Your task to perform on an android device: What's on my calendar today? Image 0: 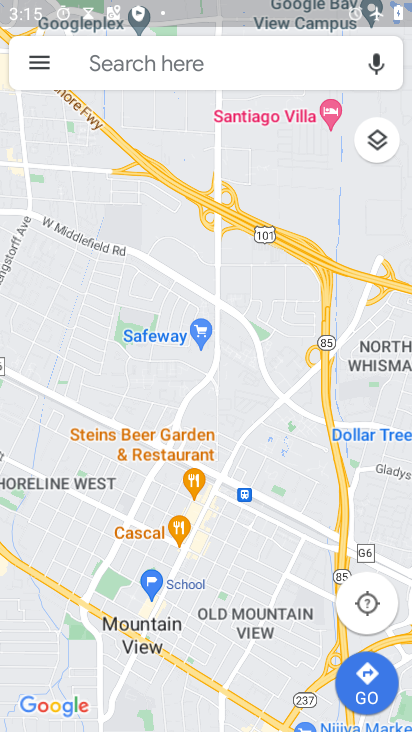
Step 0: press back button
Your task to perform on an android device: What's on my calendar today? Image 1: 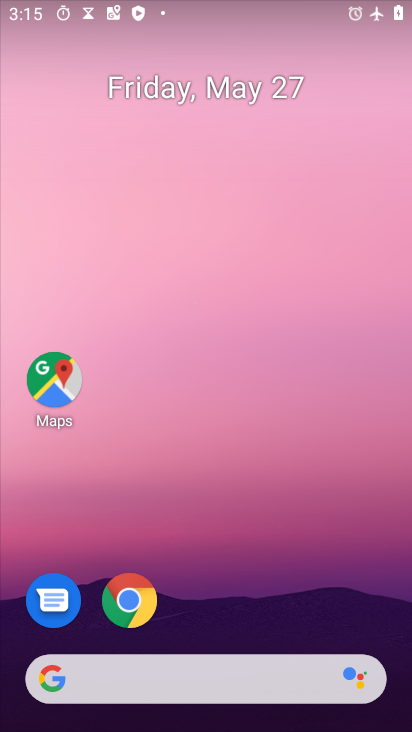
Step 1: drag from (267, 592) to (200, 29)
Your task to perform on an android device: What's on my calendar today? Image 2: 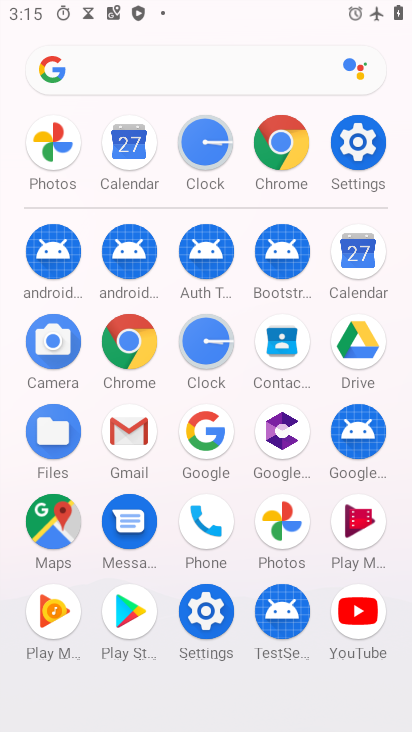
Step 2: drag from (8, 599) to (3, 234)
Your task to perform on an android device: What's on my calendar today? Image 3: 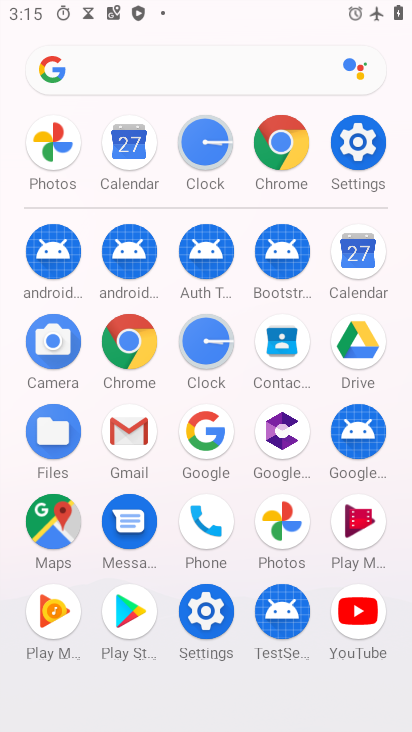
Step 3: drag from (8, 579) to (12, 348)
Your task to perform on an android device: What's on my calendar today? Image 4: 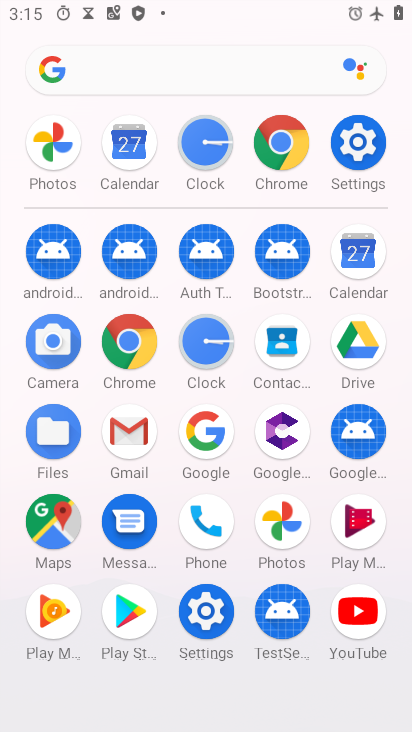
Step 4: click (356, 241)
Your task to perform on an android device: What's on my calendar today? Image 5: 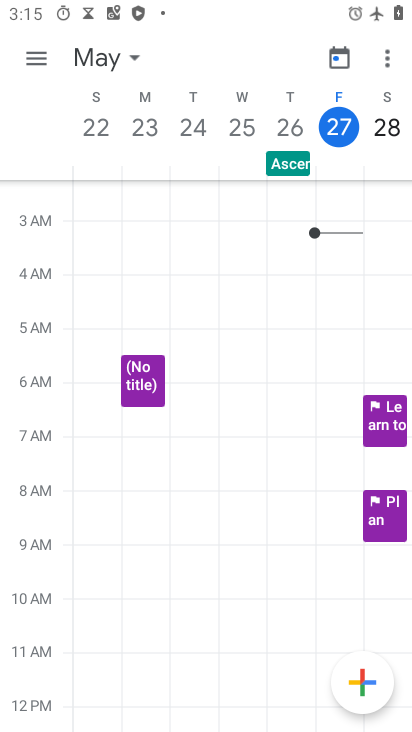
Step 5: click (335, 116)
Your task to perform on an android device: What's on my calendar today? Image 6: 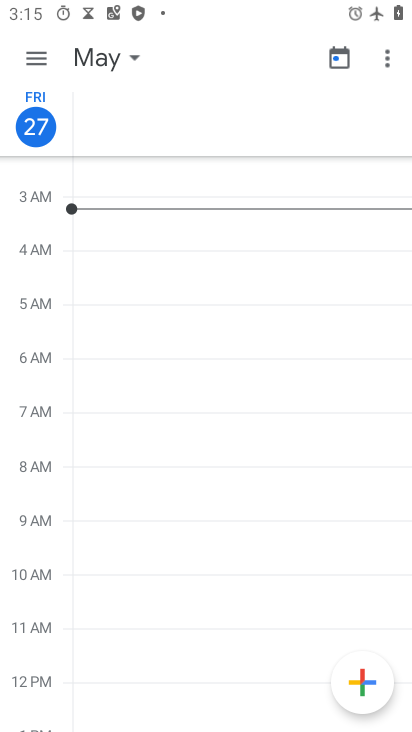
Step 6: task complete